Your task to perform on an android device: turn notification dots on Image 0: 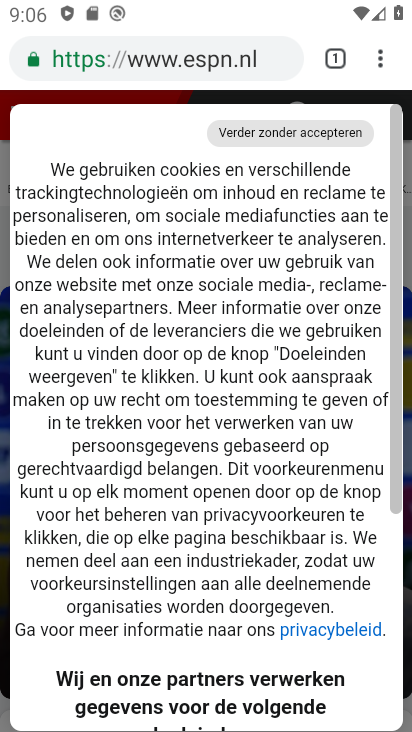
Step 0: press home button
Your task to perform on an android device: turn notification dots on Image 1: 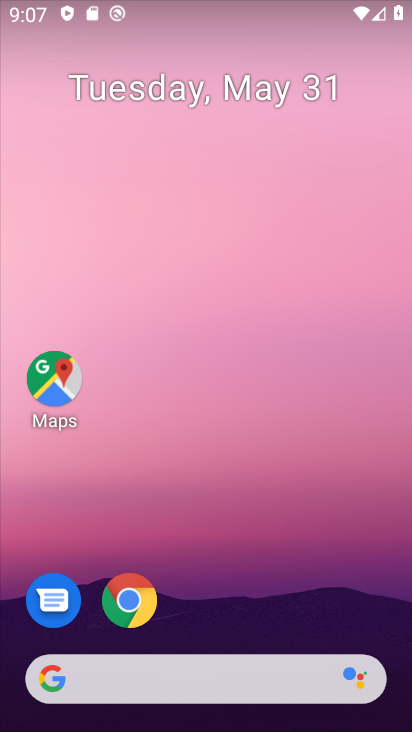
Step 1: drag from (225, 703) to (269, 94)
Your task to perform on an android device: turn notification dots on Image 2: 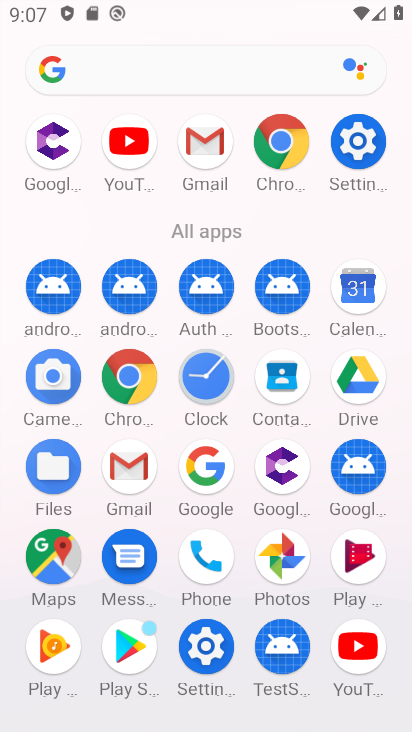
Step 2: click (359, 140)
Your task to perform on an android device: turn notification dots on Image 3: 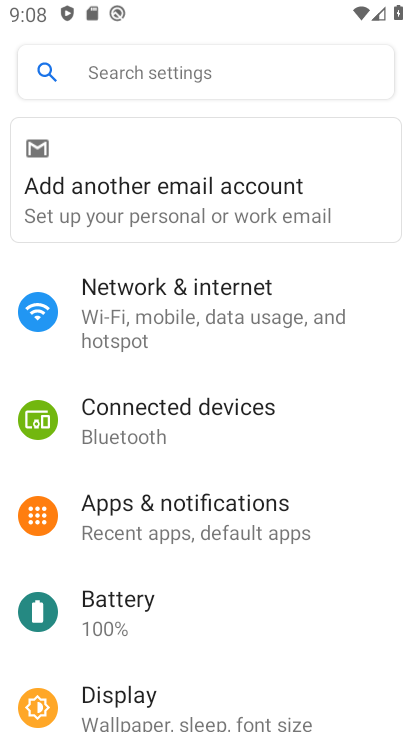
Step 3: click (139, 61)
Your task to perform on an android device: turn notification dots on Image 4: 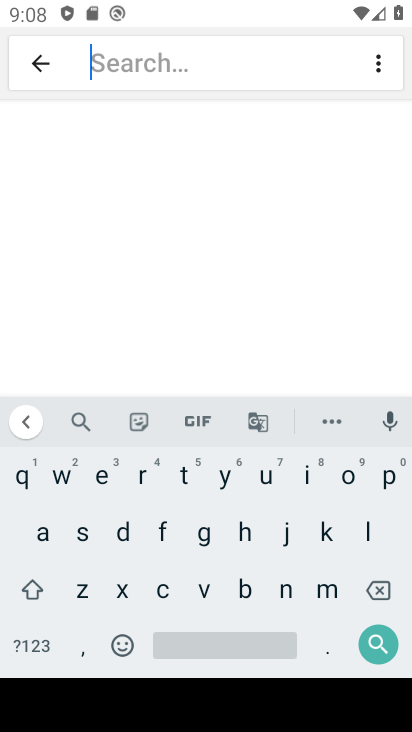
Step 4: click (152, 78)
Your task to perform on an android device: turn notification dots on Image 5: 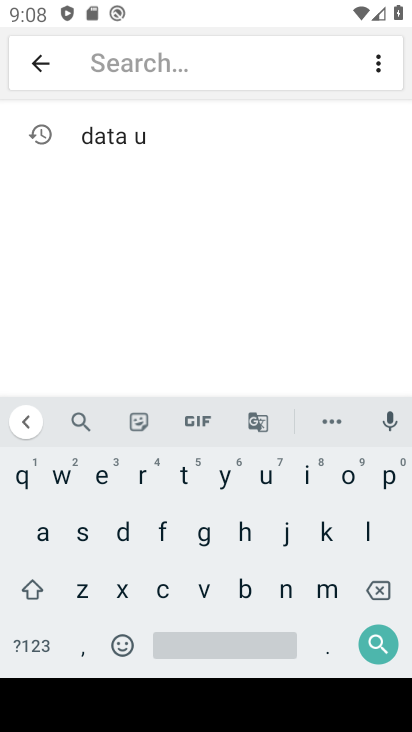
Step 5: click (115, 545)
Your task to perform on an android device: turn notification dots on Image 6: 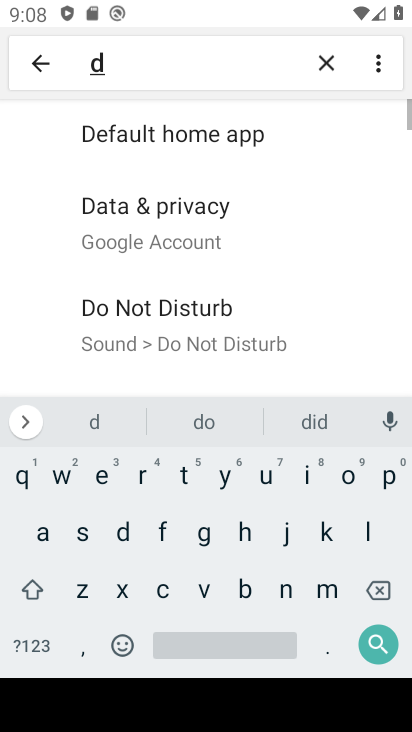
Step 6: click (346, 477)
Your task to perform on an android device: turn notification dots on Image 7: 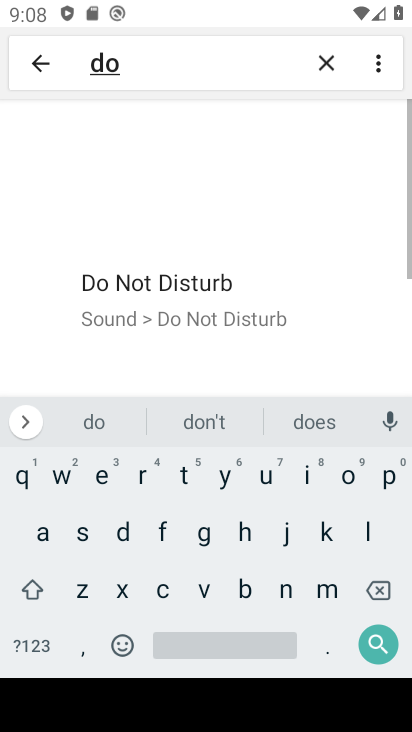
Step 7: click (181, 474)
Your task to perform on an android device: turn notification dots on Image 8: 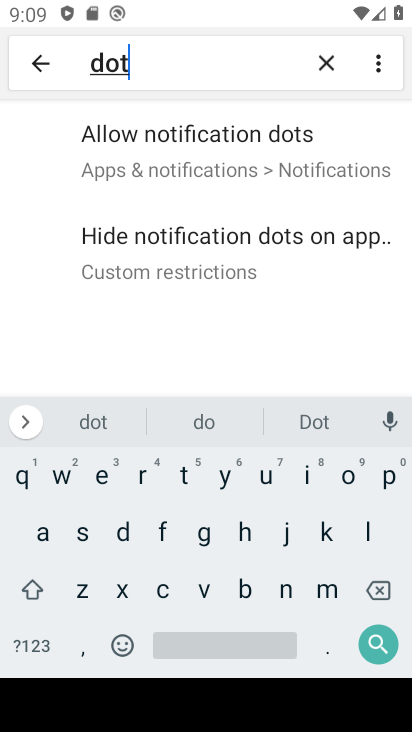
Step 8: click (202, 166)
Your task to perform on an android device: turn notification dots on Image 9: 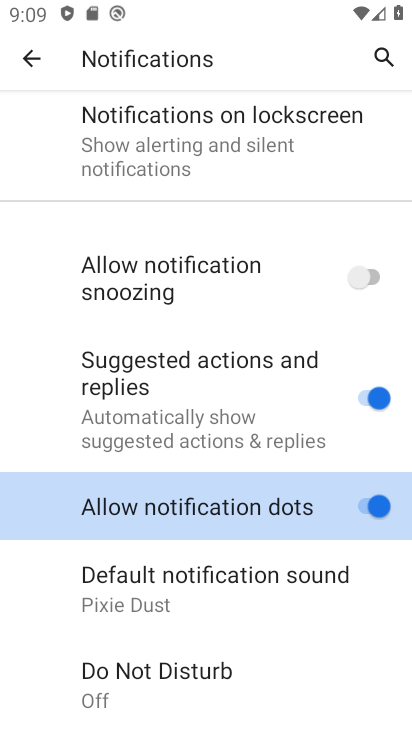
Step 9: click (222, 500)
Your task to perform on an android device: turn notification dots on Image 10: 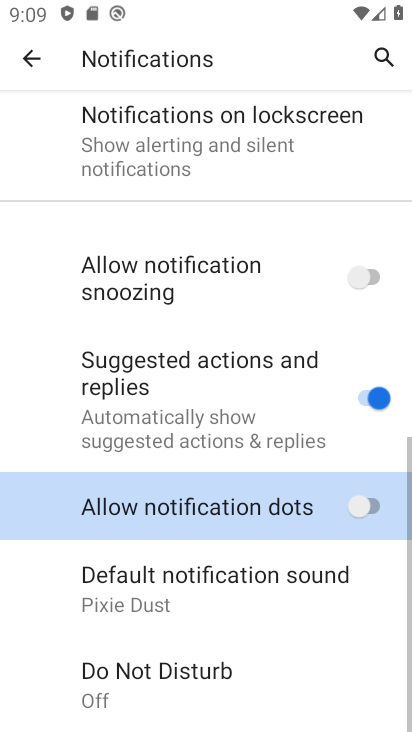
Step 10: click (222, 500)
Your task to perform on an android device: turn notification dots on Image 11: 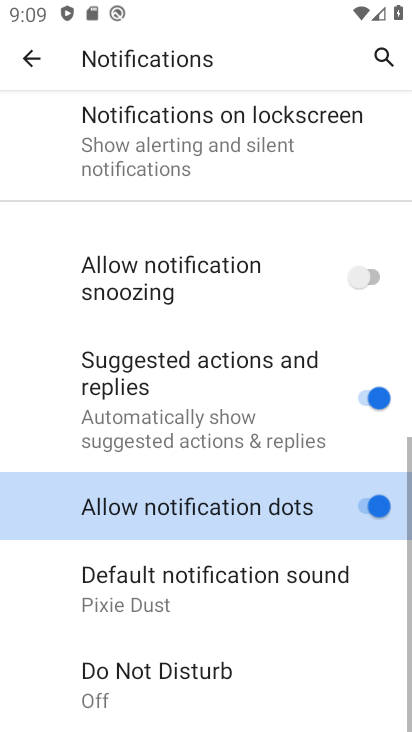
Step 11: task complete